Your task to perform on an android device: open a new tab in the chrome app Image 0: 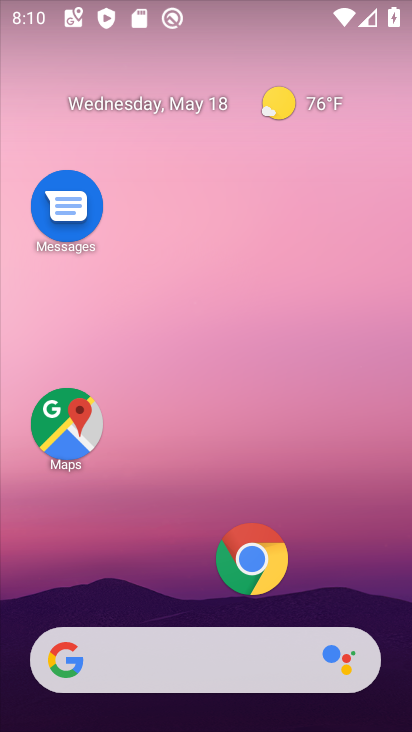
Step 0: click (263, 572)
Your task to perform on an android device: open a new tab in the chrome app Image 1: 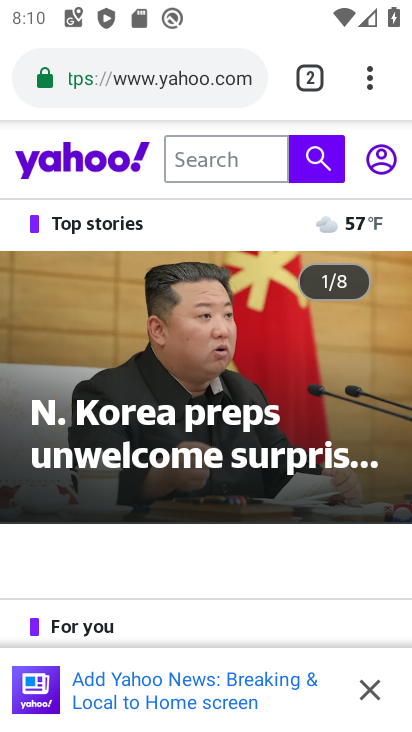
Step 1: click (297, 74)
Your task to perform on an android device: open a new tab in the chrome app Image 2: 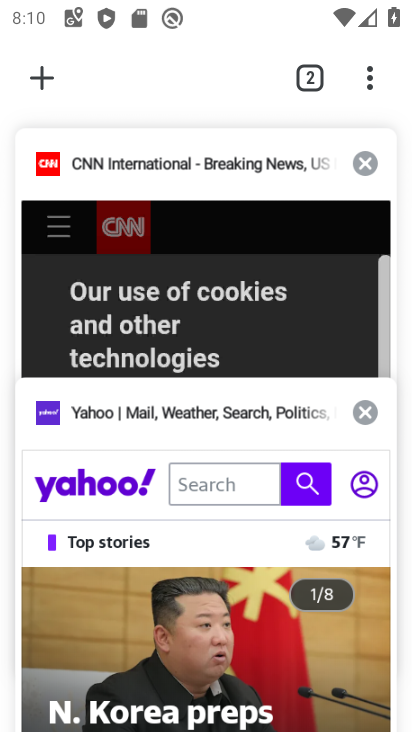
Step 2: click (46, 87)
Your task to perform on an android device: open a new tab in the chrome app Image 3: 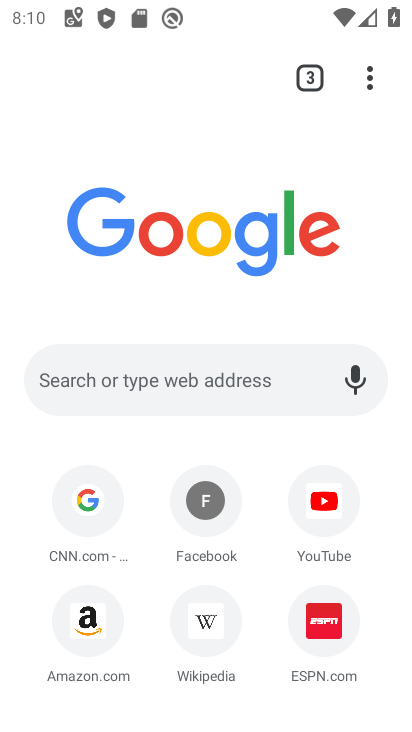
Step 3: task complete